Your task to perform on an android device: find photos in the google photos app Image 0: 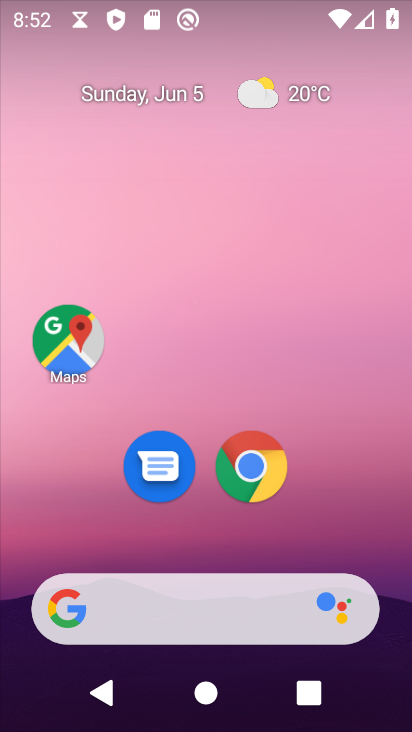
Step 0: drag from (228, 560) to (236, 66)
Your task to perform on an android device: find photos in the google photos app Image 1: 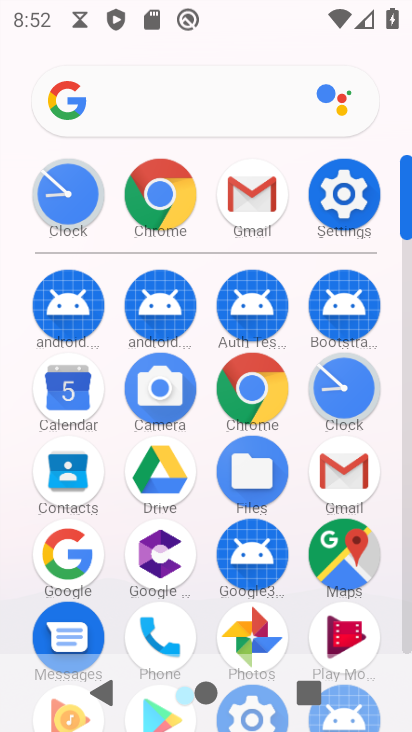
Step 1: click (256, 625)
Your task to perform on an android device: find photos in the google photos app Image 2: 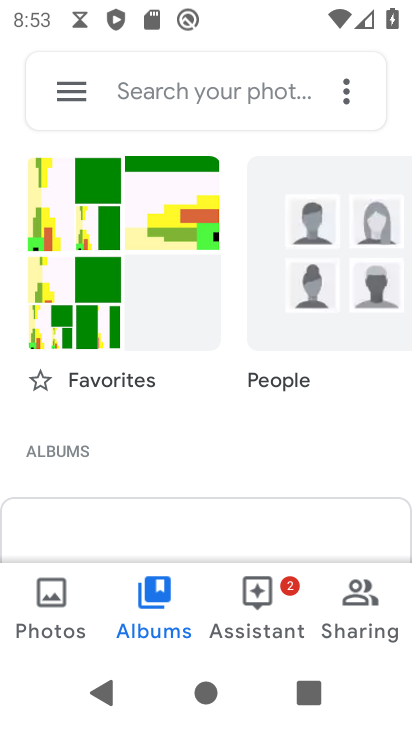
Step 2: click (21, 610)
Your task to perform on an android device: find photos in the google photos app Image 3: 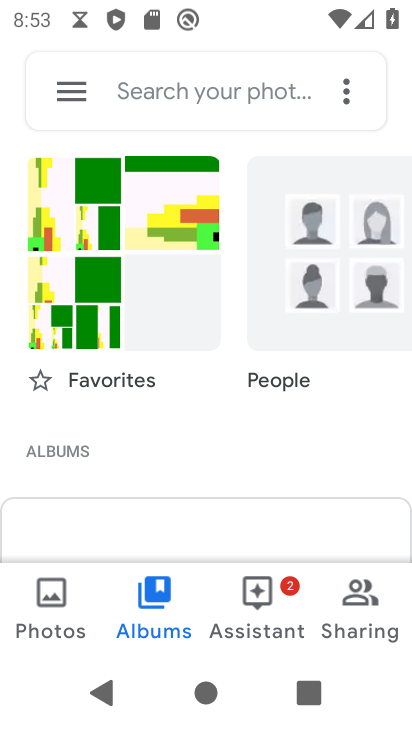
Step 3: click (59, 600)
Your task to perform on an android device: find photos in the google photos app Image 4: 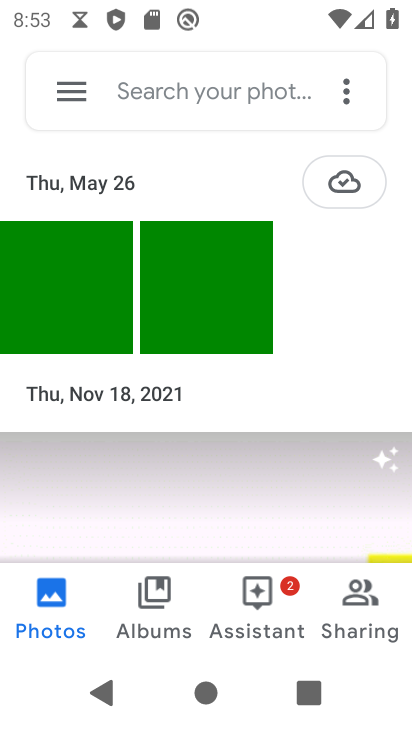
Step 4: task complete